Your task to perform on an android device: Open Google Maps and go to "Timeline" Image 0: 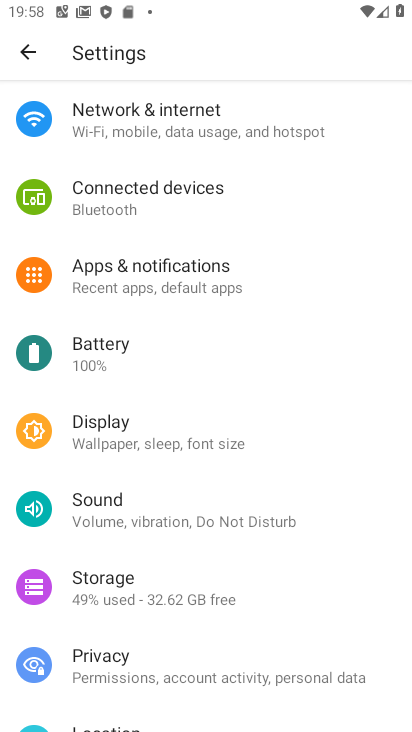
Step 0: press home button
Your task to perform on an android device: Open Google Maps and go to "Timeline" Image 1: 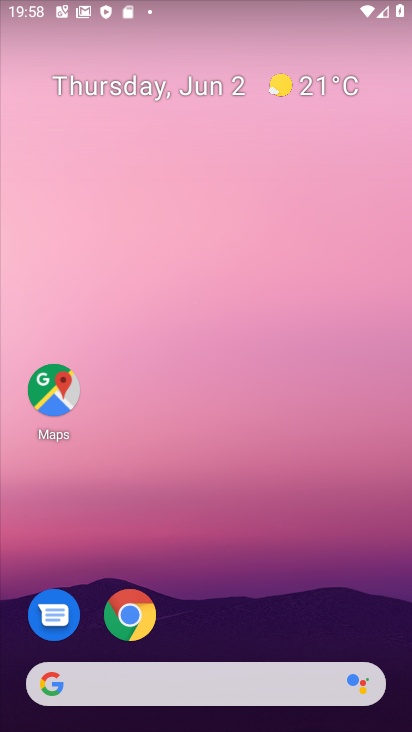
Step 1: click (44, 387)
Your task to perform on an android device: Open Google Maps and go to "Timeline" Image 2: 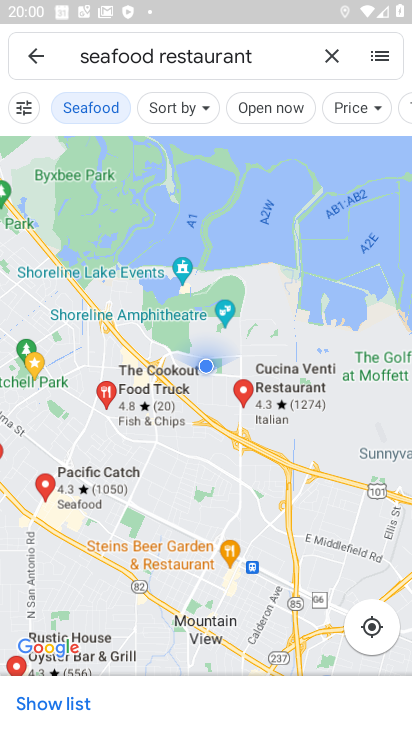
Step 2: click (34, 59)
Your task to perform on an android device: Open Google Maps and go to "Timeline" Image 3: 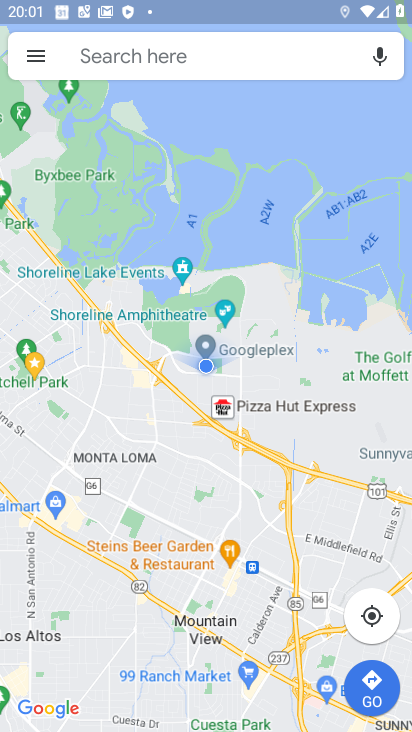
Step 3: click (28, 52)
Your task to perform on an android device: Open Google Maps and go to "Timeline" Image 4: 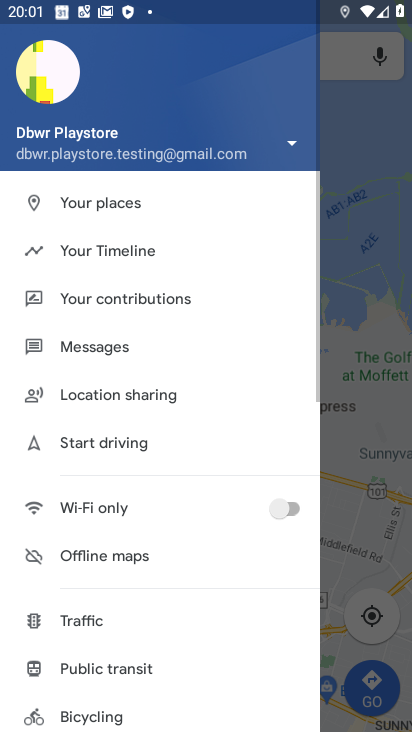
Step 4: click (62, 249)
Your task to perform on an android device: Open Google Maps and go to "Timeline" Image 5: 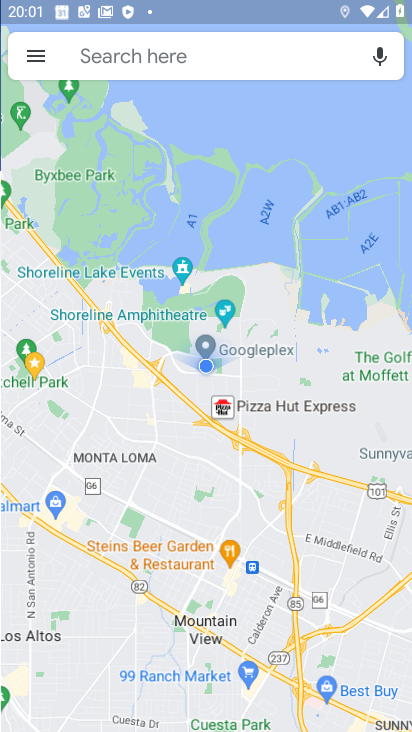
Step 5: task complete